Your task to perform on an android device: Show me productivity apps on the Play Store Image 0: 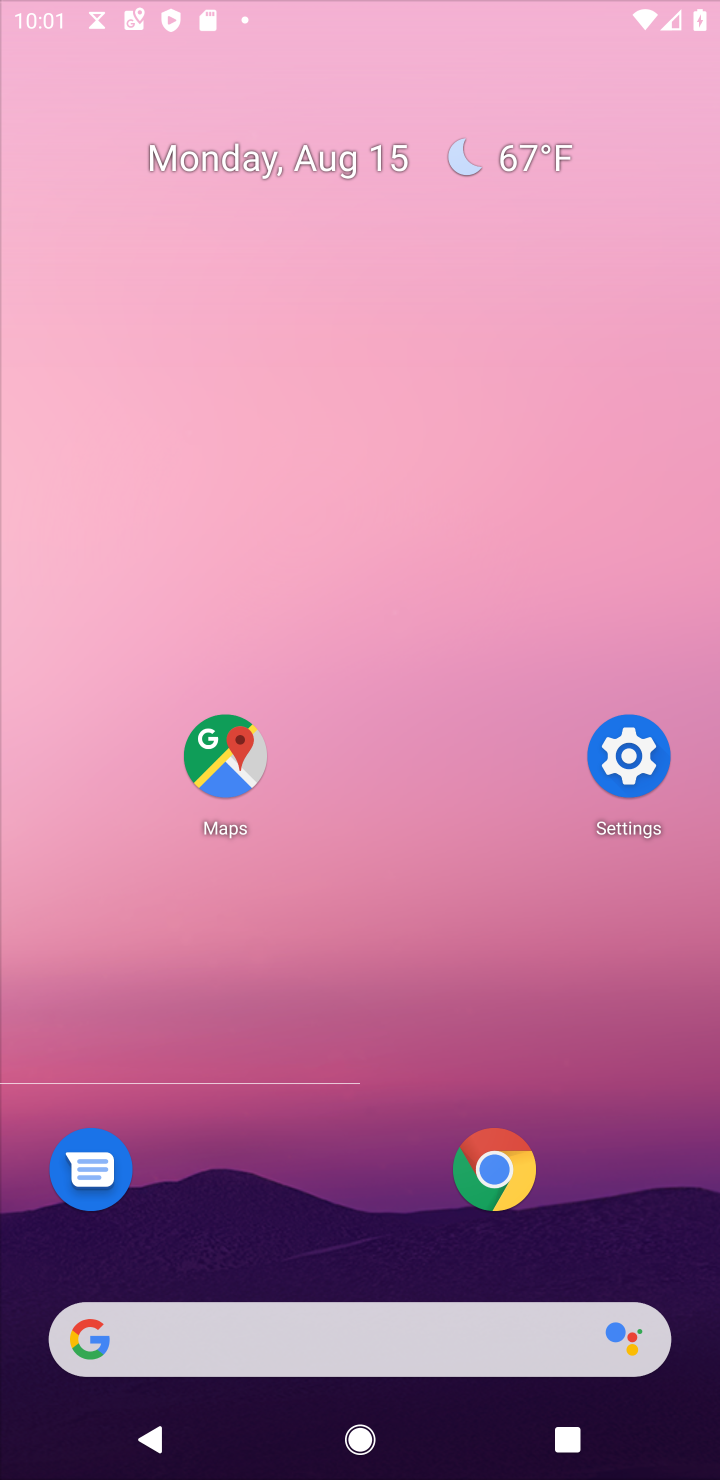
Step 0: press home button
Your task to perform on an android device: Show me productivity apps on the Play Store Image 1: 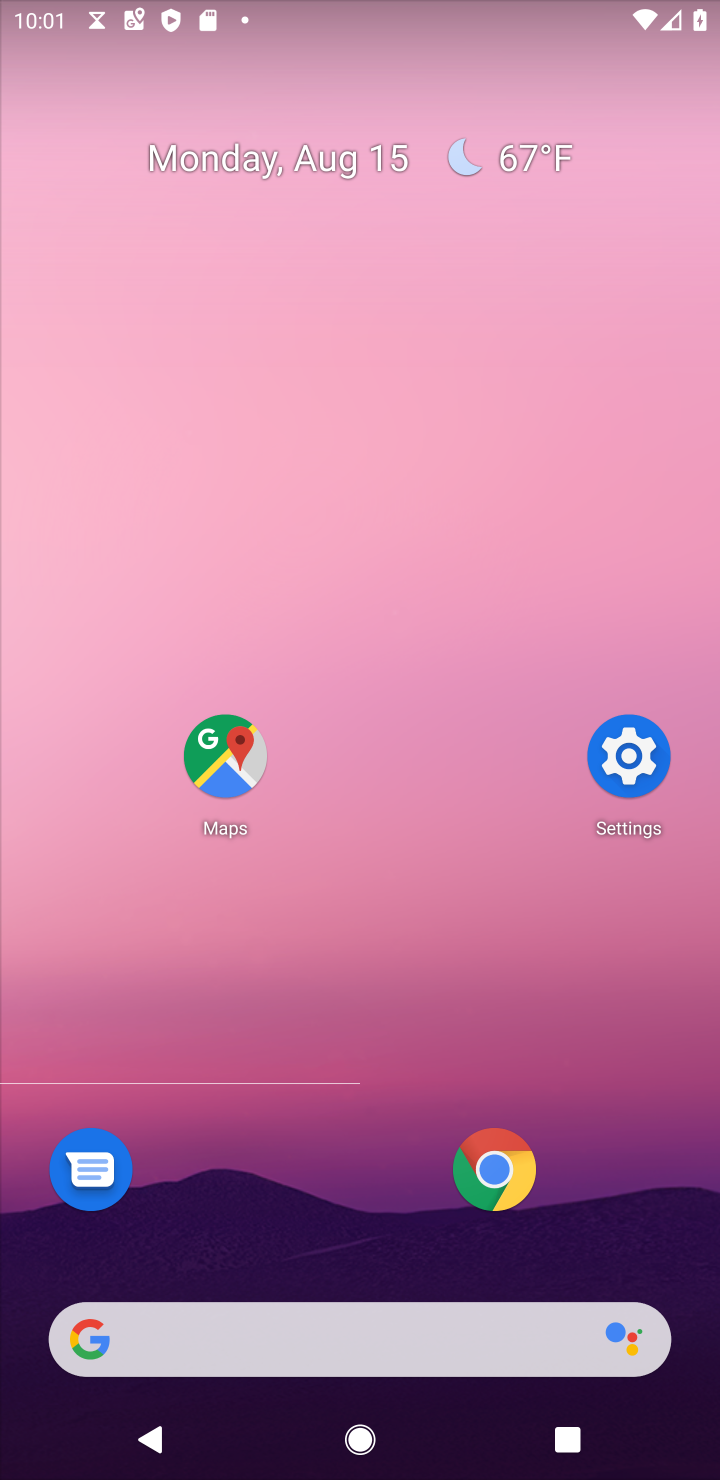
Step 1: drag from (373, 1325) to (551, 124)
Your task to perform on an android device: Show me productivity apps on the Play Store Image 2: 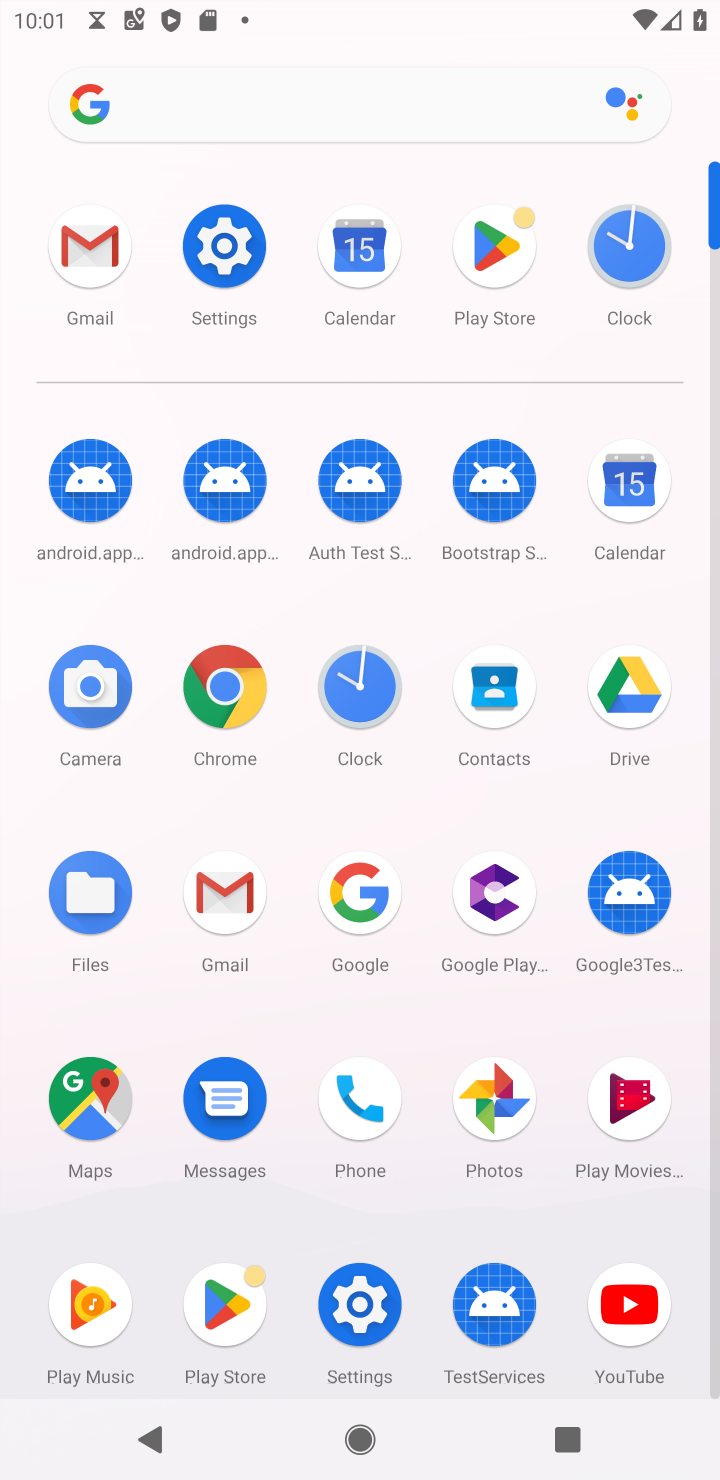
Step 2: click (226, 1299)
Your task to perform on an android device: Show me productivity apps on the Play Store Image 3: 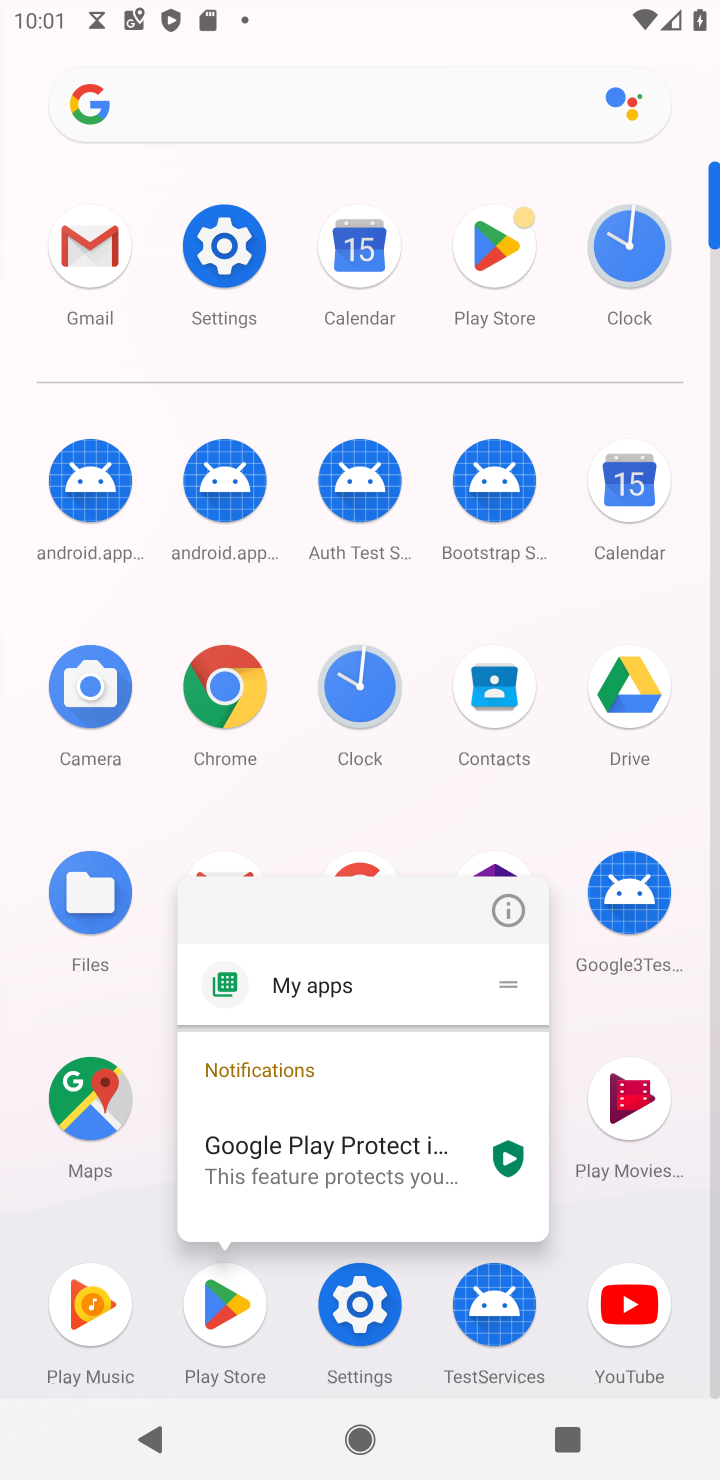
Step 3: click (211, 1320)
Your task to perform on an android device: Show me productivity apps on the Play Store Image 4: 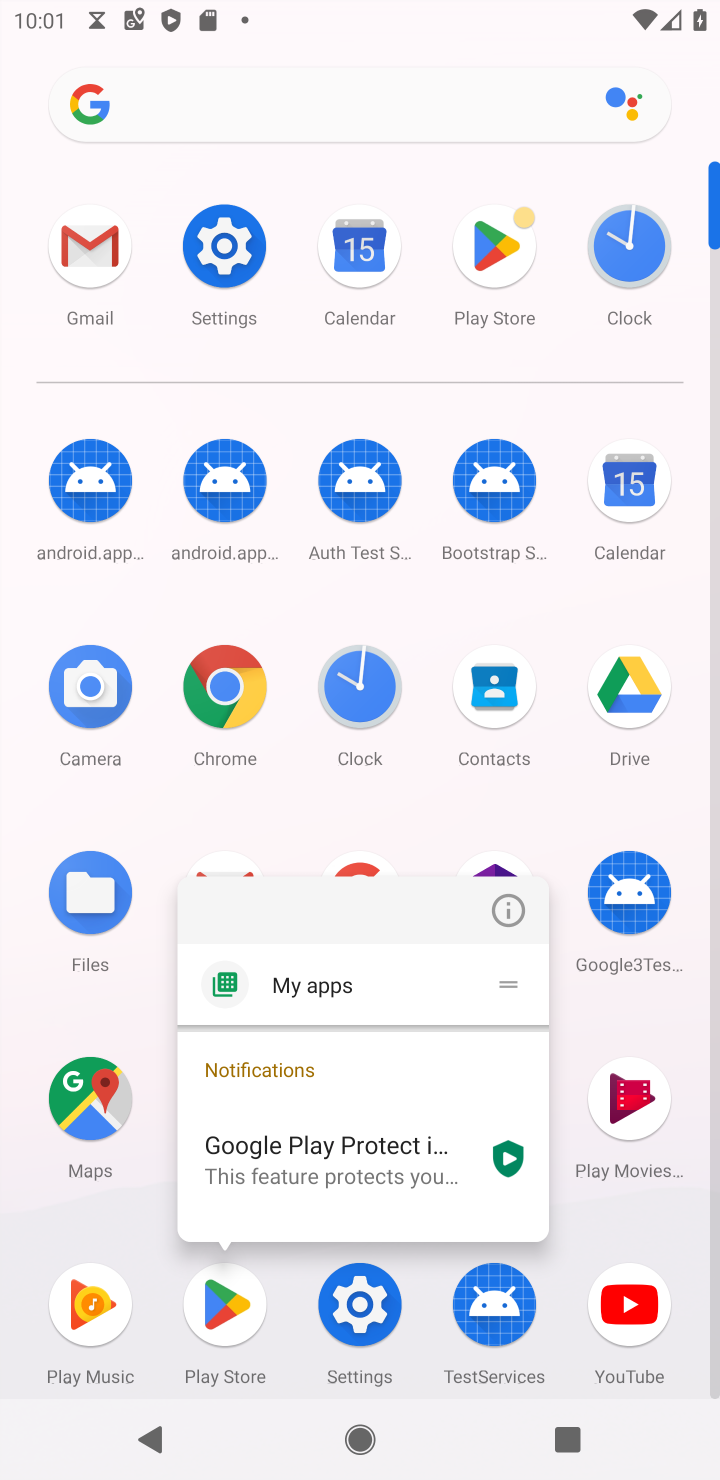
Step 4: click (226, 1301)
Your task to perform on an android device: Show me productivity apps on the Play Store Image 5: 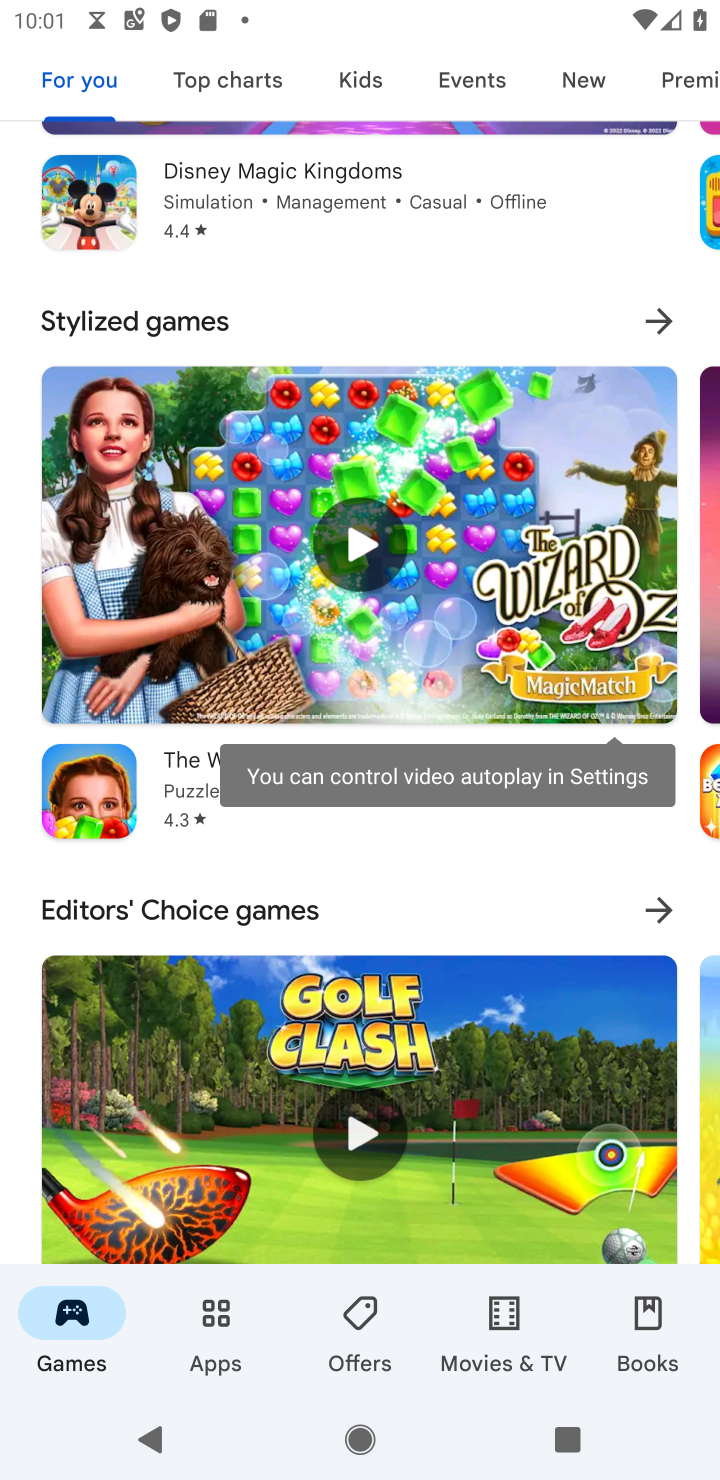
Step 5: click (216, 1338)
Your task to perform on an android device: Show me productivity apps on the Play Store Image 6: 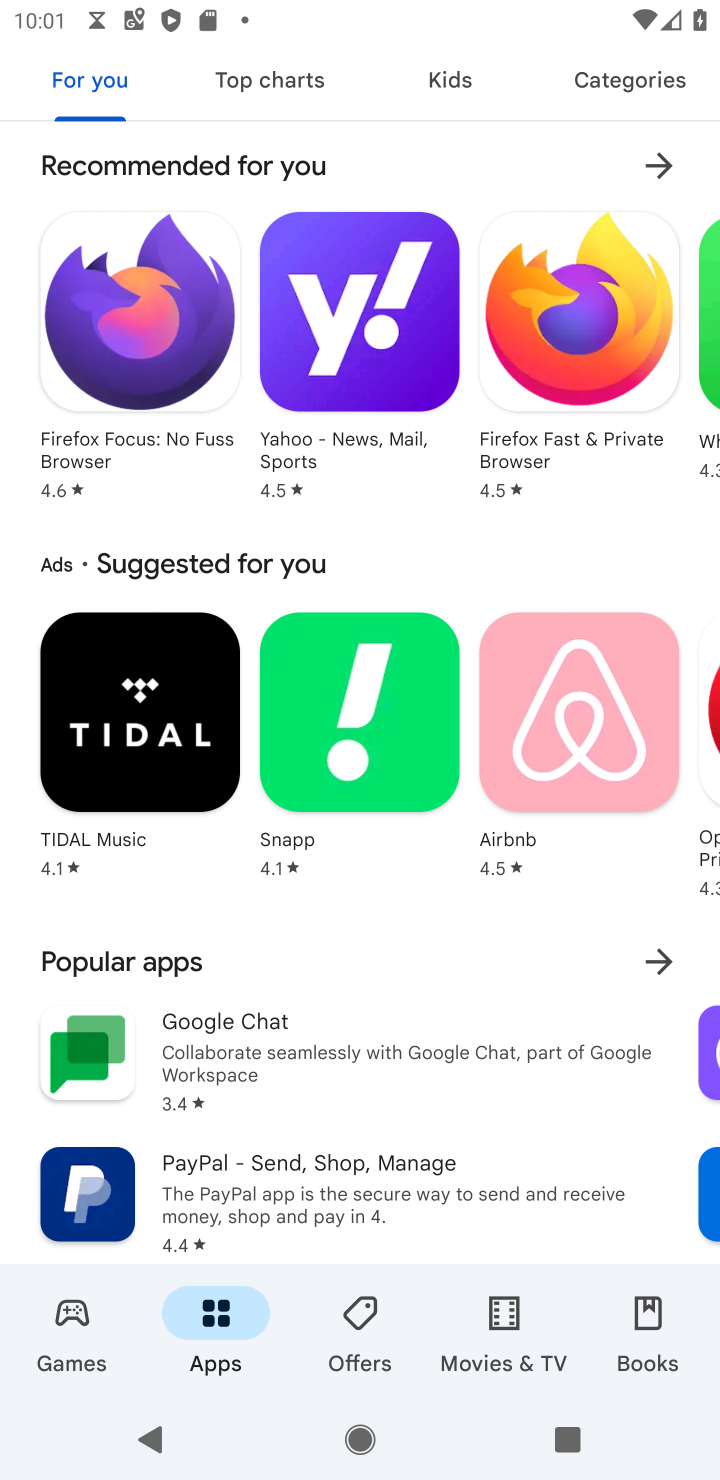
Step 6: click (638, 74)
Your task to perform on an android device: Show me productivity apps on the Play Store Image 7: 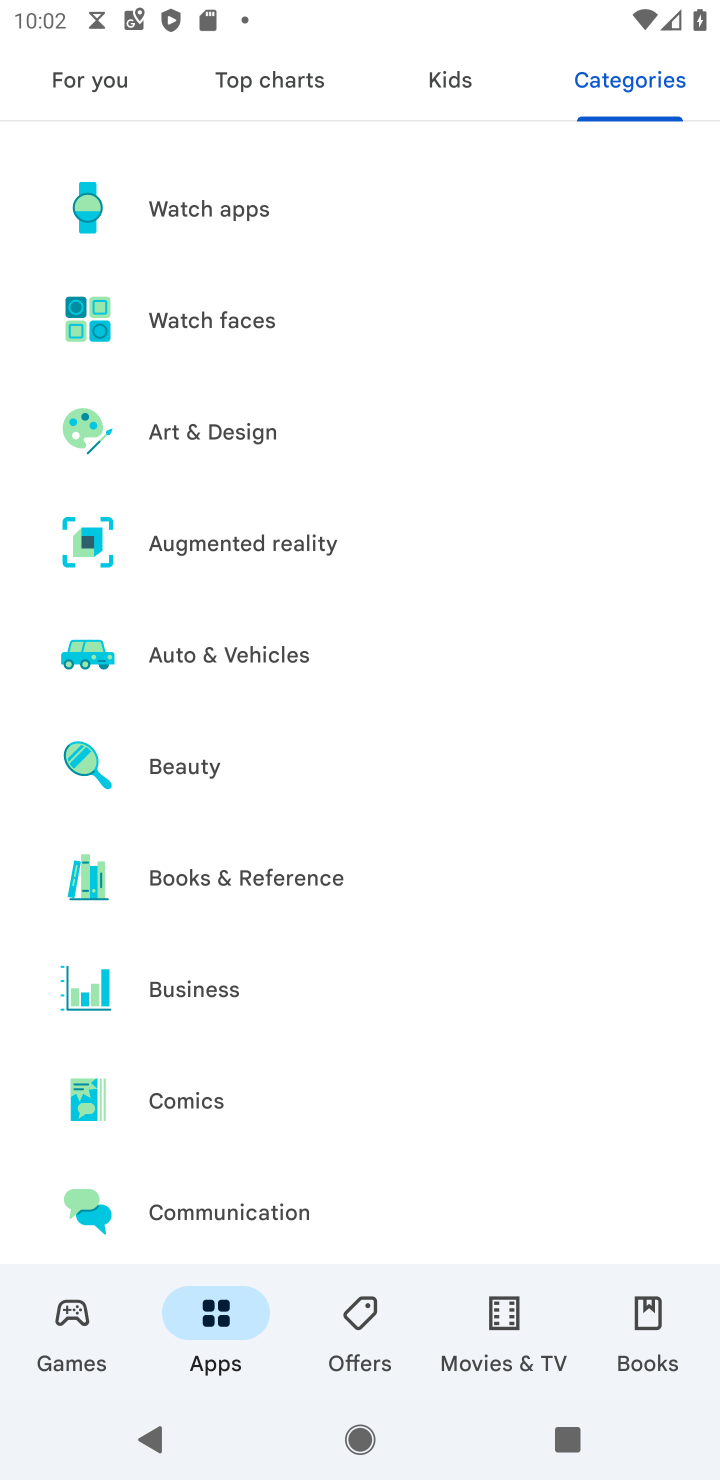
Step 7: drag from (448, 1085) to (569, 332)
Your task to perform on an android device: Show me productivity apps on the Play Store Image 8: 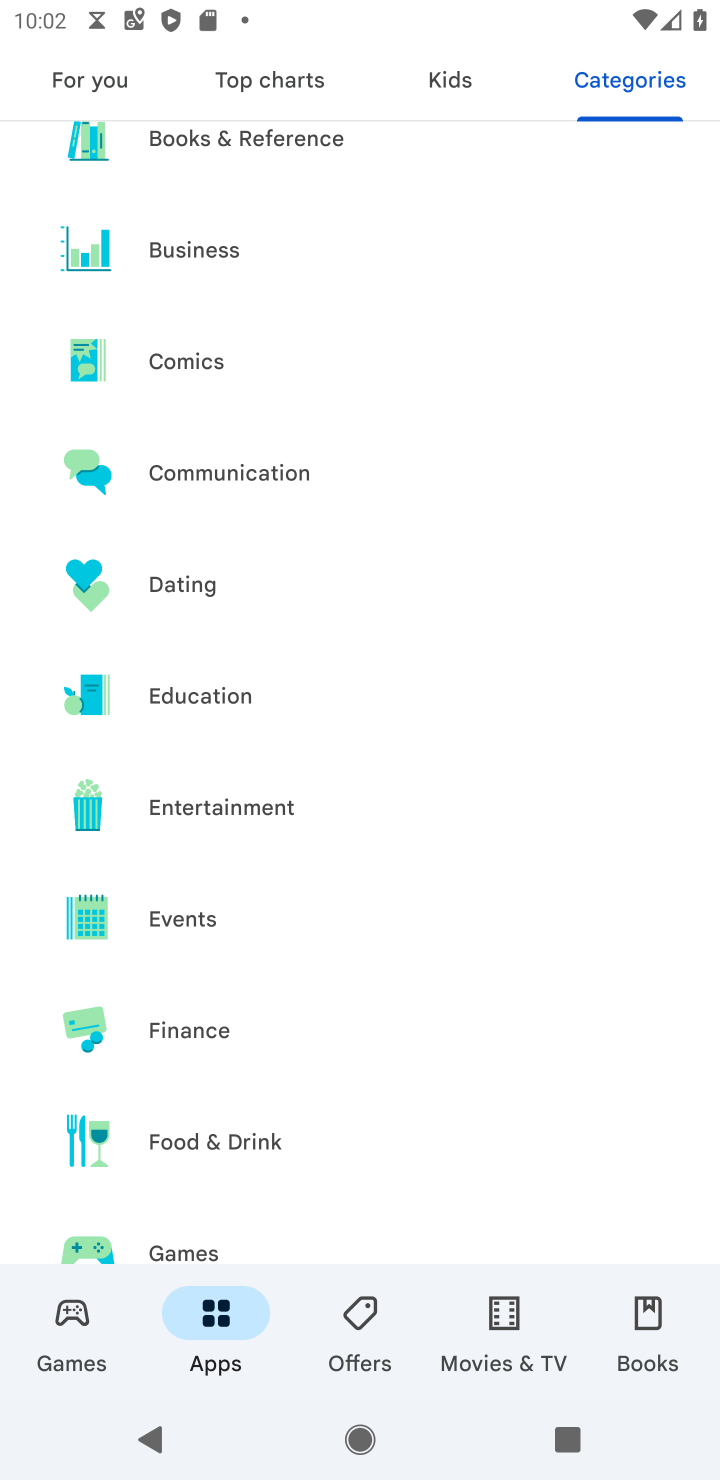
Step 8: drag from (358, 1112) to (500, 446)
Your task to perform on an android device: Show me productivity apps on the Play Store Image 9: 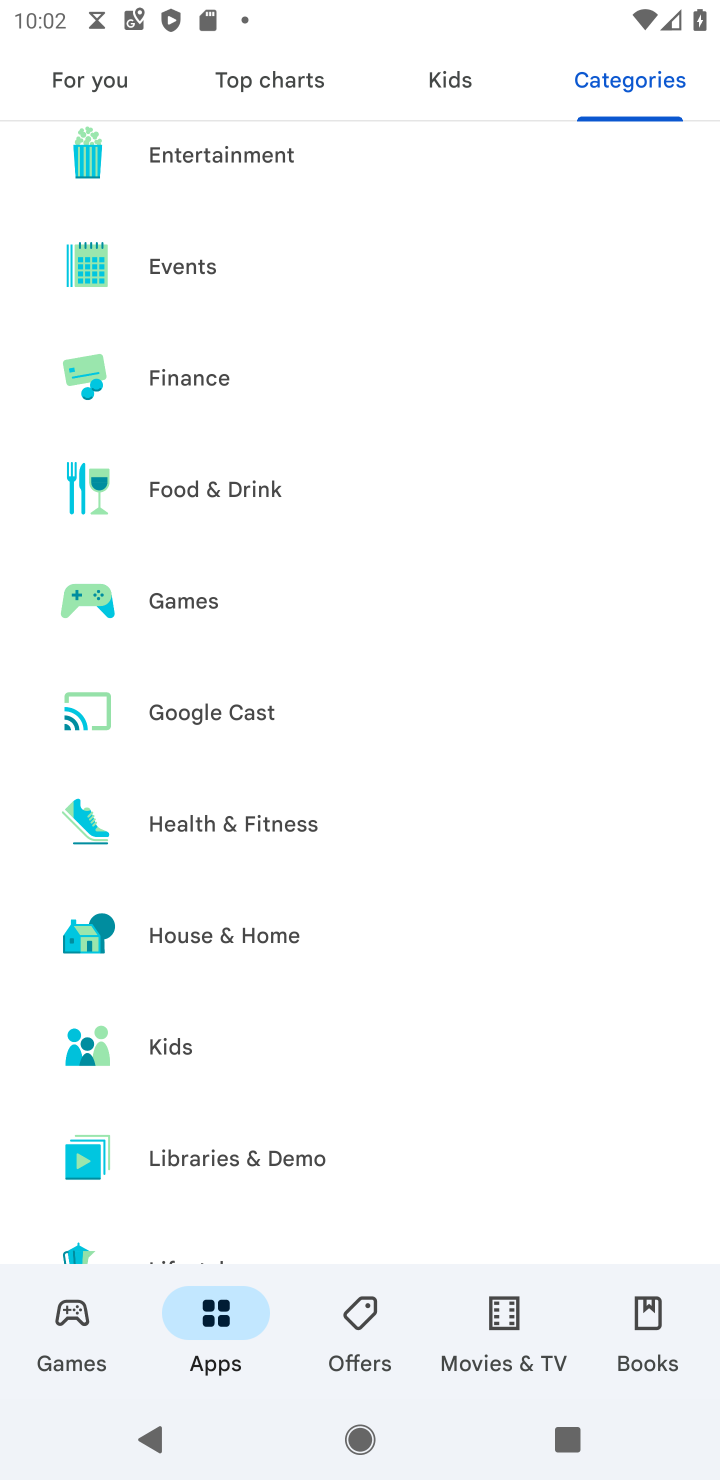
Step 9: drag from (446, 1023) to (577, 125)
Your task to perform on an android device: Show me productivity apps on the Play Store Image 10: 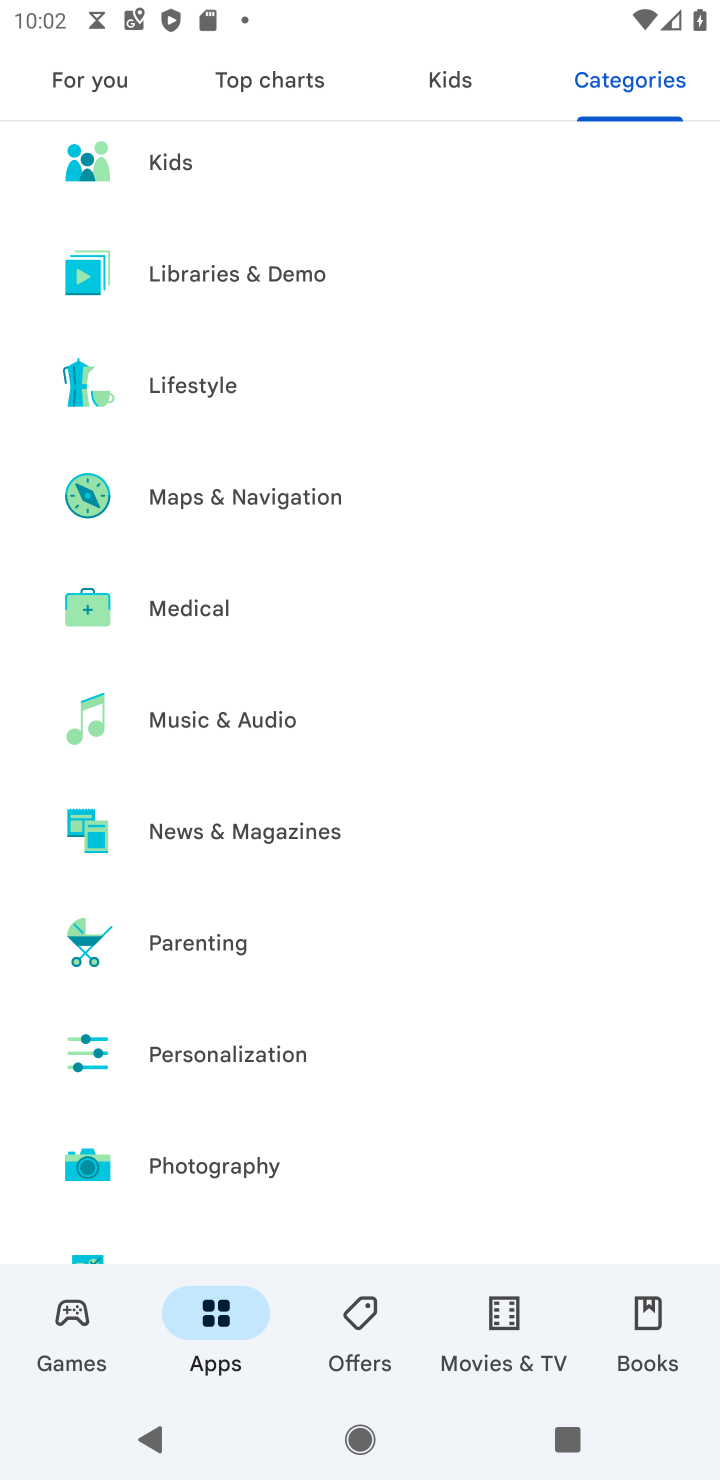
Step 10: drag from (489, 960) to (577, 51)
Your task to perform on an android device: Show me productivity apps on the Play Store Image 11: 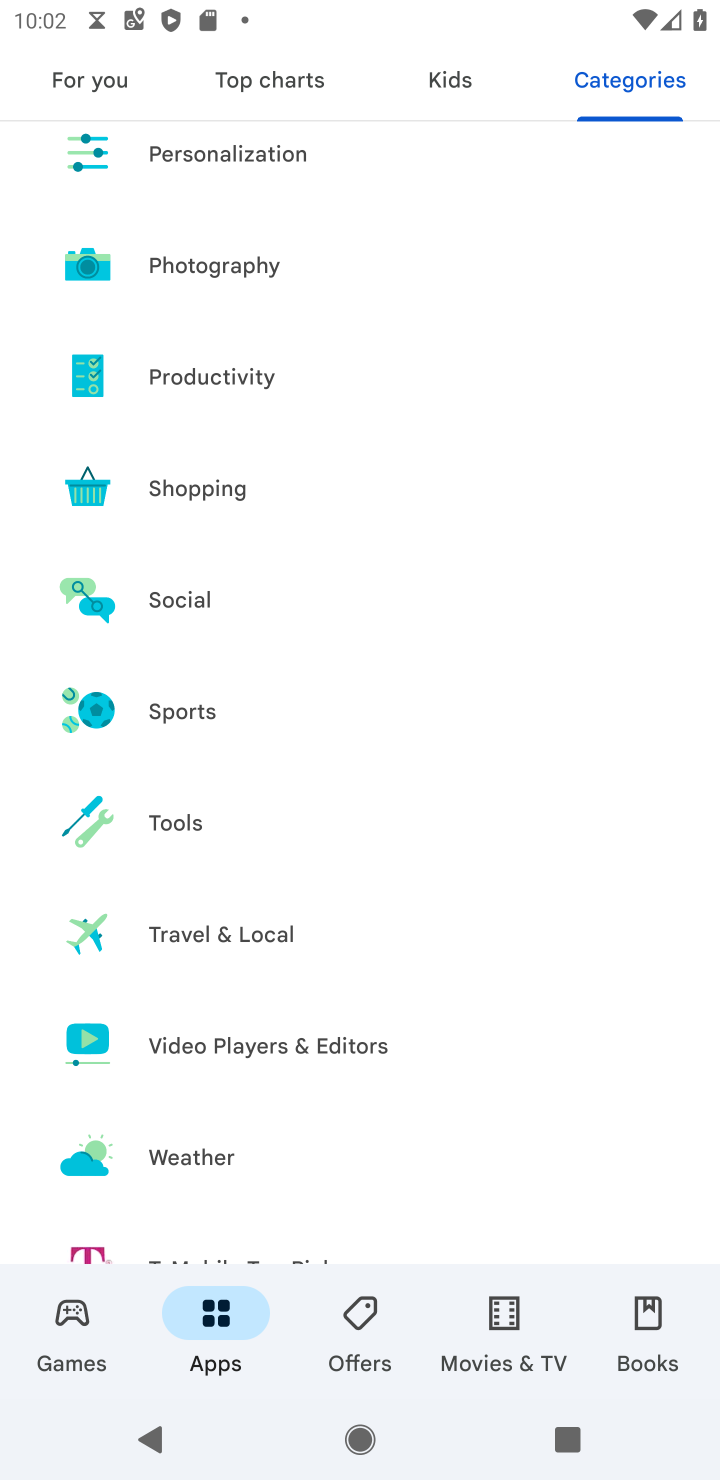
Step 11: click (218, 367)
Your task to perform on an android device: Show me productivity apps on the Play Store Image 12: 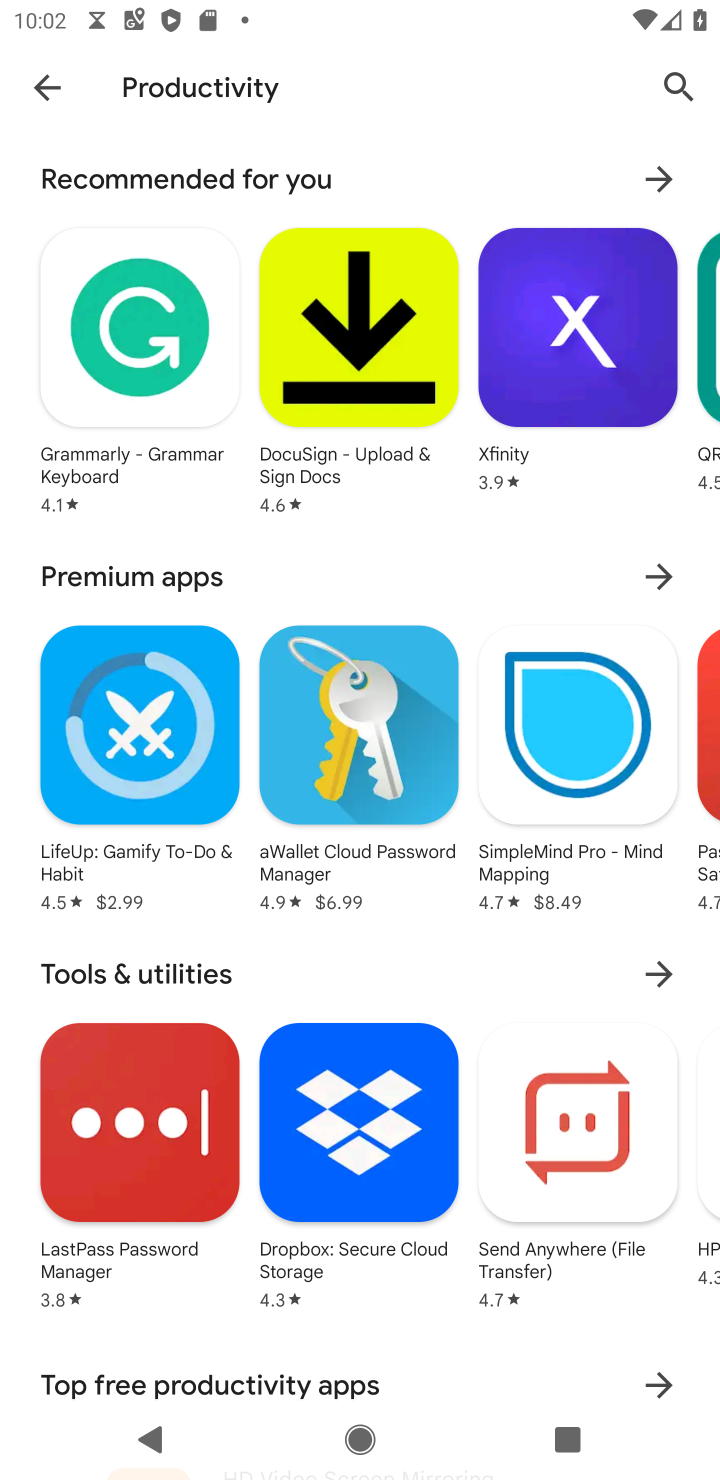
Step 12: task complete